Your task to perform on an android device: change keyboard looks Image 0: 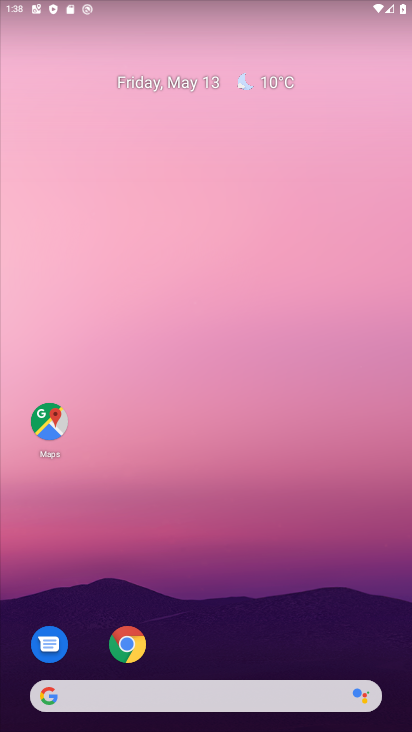
Step 0: drag from (270, 686) to (357, 0)
Your task to perform on an android device: change keyboard looks Image 1: 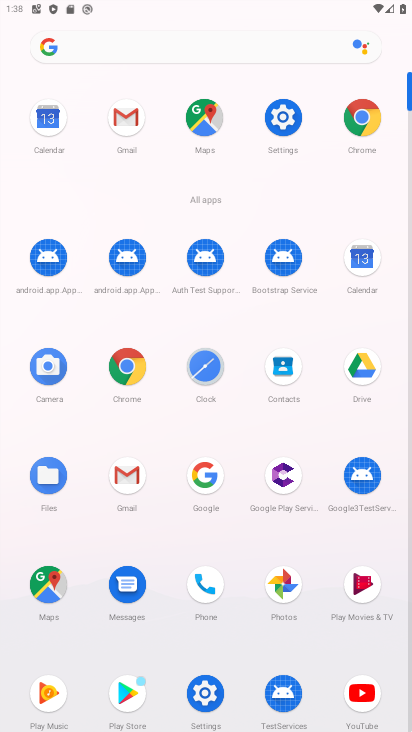
Step 1: click (283, 124)
Your task to perform on an android device: change keyboard looks Image 2: 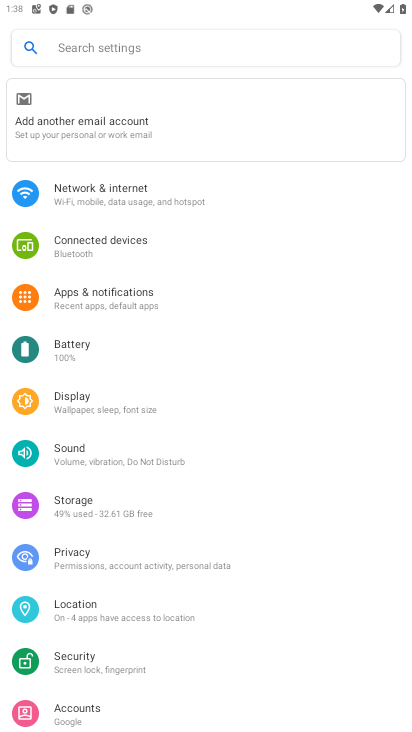
Step 2: drag from (178, 687) to (200, 148)
Your task to perform on an android device: change keyboard looks Image 3: 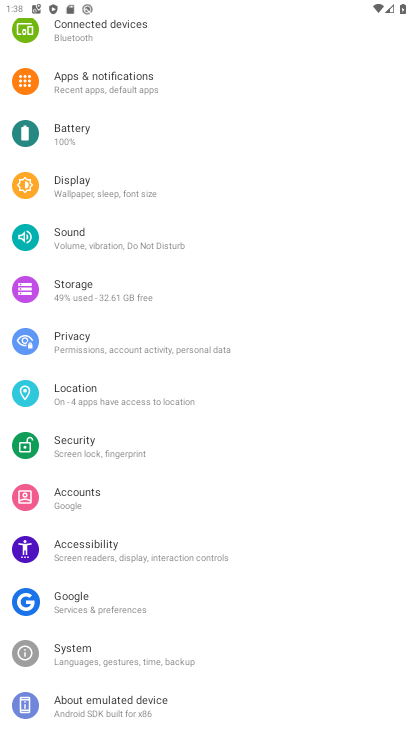
Step 3: click (139, 654)
Your task to perform on an android device: change keyboard looks Image 4: 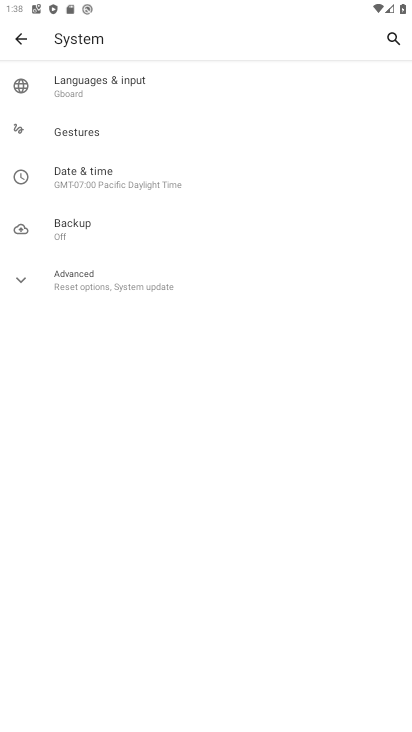
Step 4: click (109, 98)
Your task to perform on an android device: change keyboard looks Image 5: 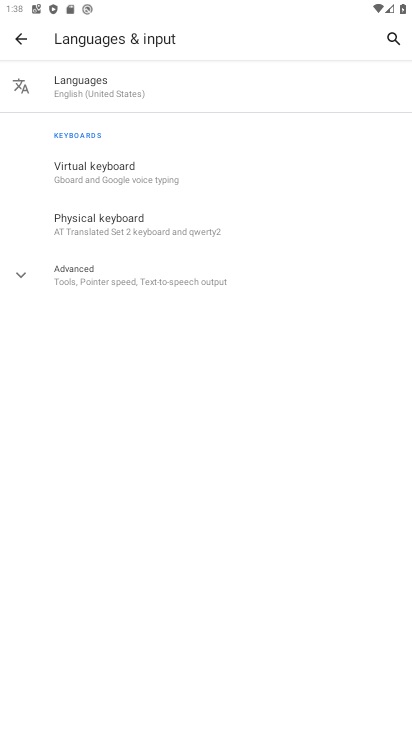
Step 5: click (118, 93)
Your task to perform on an android device: change keyboard looks Image 6: 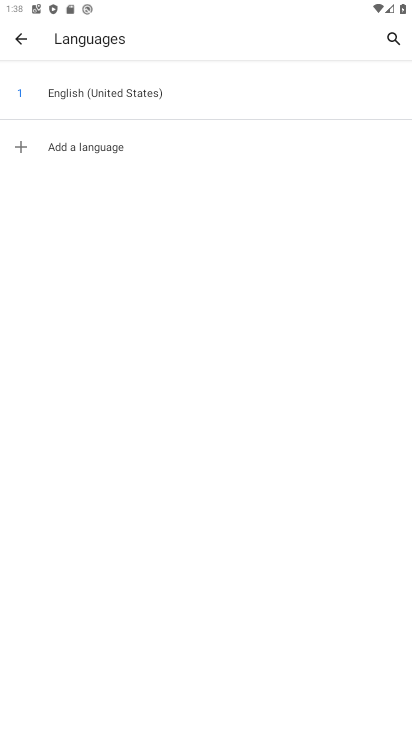
Step 6: press back button
Your task to perform on an android device: change keyboard looks Image 7: 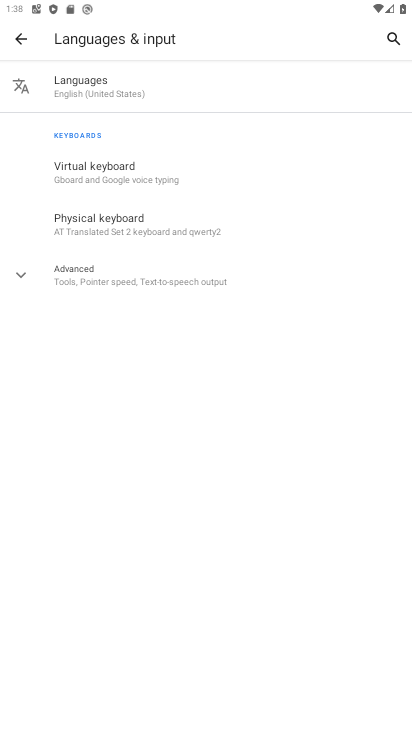
Step 7: click (160, 172)
Your task to perform on an android device: change keyboard looks Image 8: 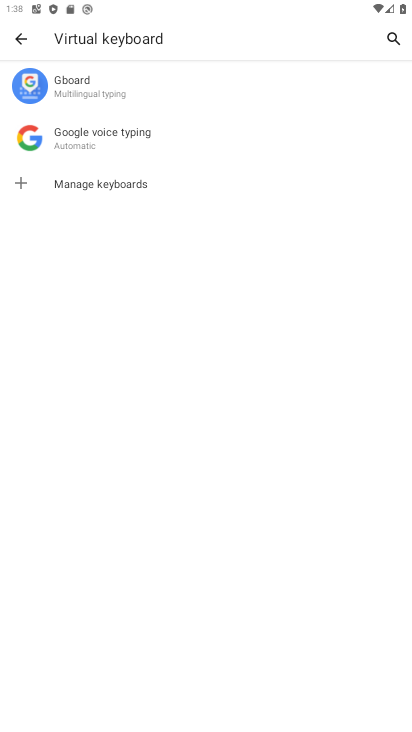
Step 8: click (124, 89)
Your task to perform on an android device: change keyboard looks Image 9: 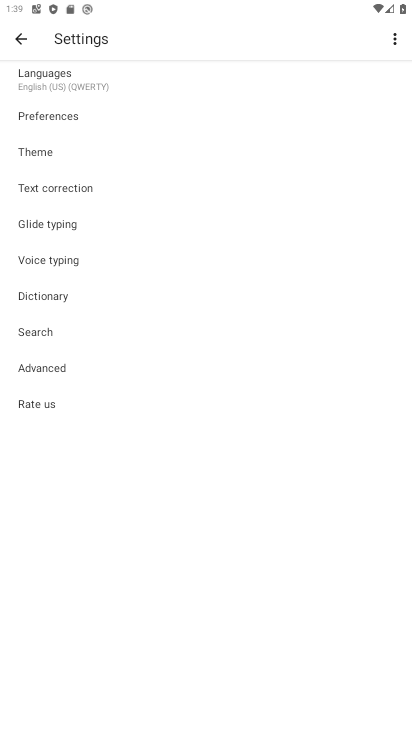
Step 9: click (71, 152)
Your task to perform on an android device: change keyboard looks Image 10: 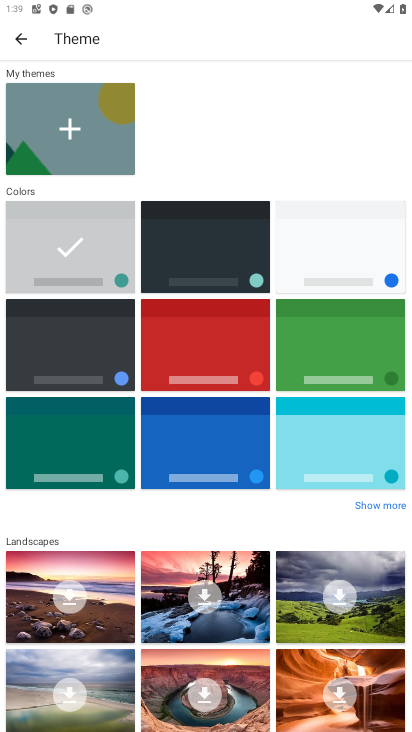
Step 10: click (211, 336)
Your task to perform on an android device: change keyboard looks Image 11: 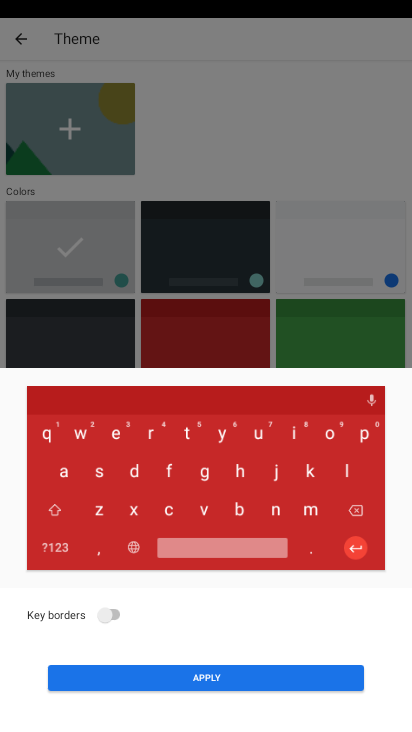
Step 11: click (217, 676)
Your task to perform on an android device: change keyboard looks Image 12: 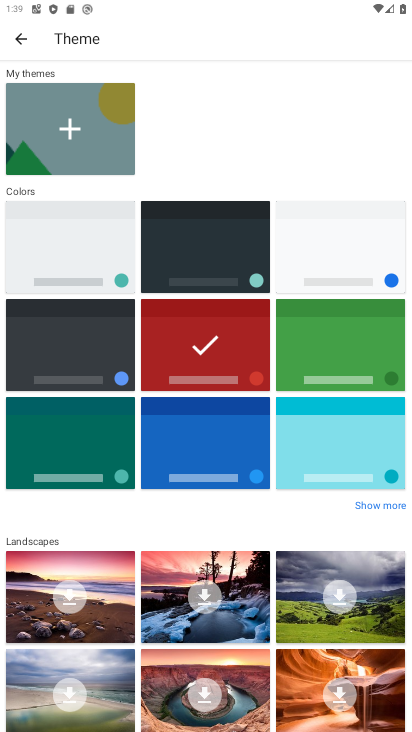
Step 12: task complete